Your task to perform on an android device: Go to ESPN.com Image 0: 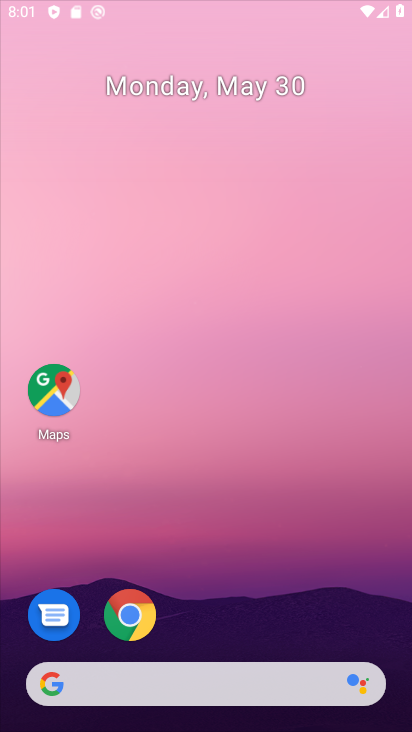
Step 0: press home button
Your task to perform on an android device: Go to ESPN.com Image 1: 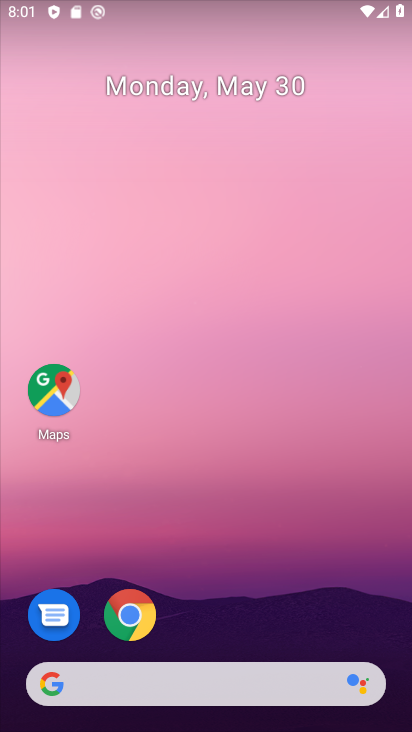
Step 1: click (123, 619)
Your task to perform on an android device: Go to ESPN.com Image 2: 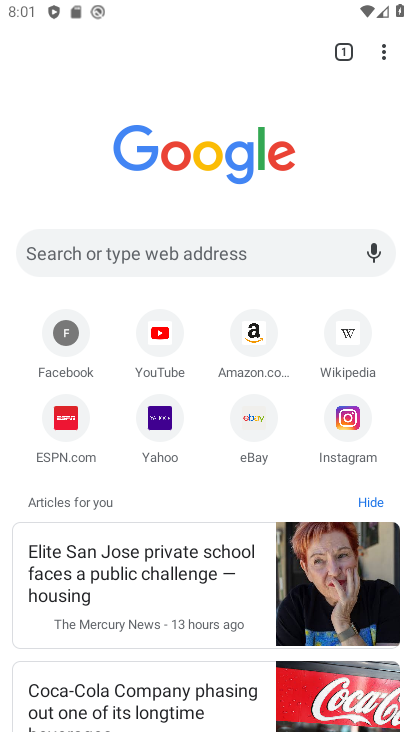
Step 2: click (67, 419)
Your task to perform on an android device: Go to ESPN.com Image 3: 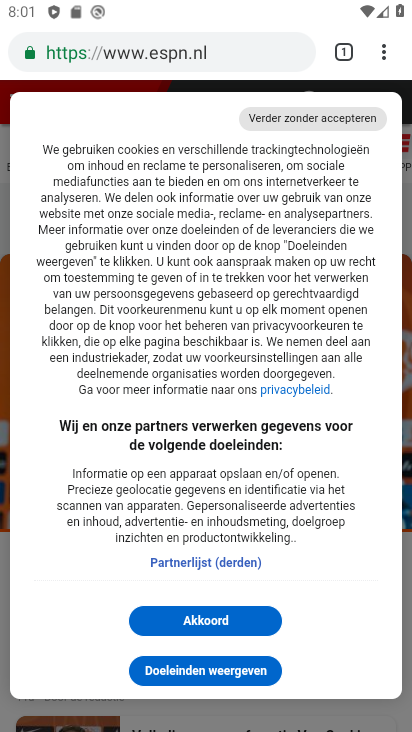
Step 3: click (188, 618)
Your task to perform on an android device: Go to ESPN.com Image 4: 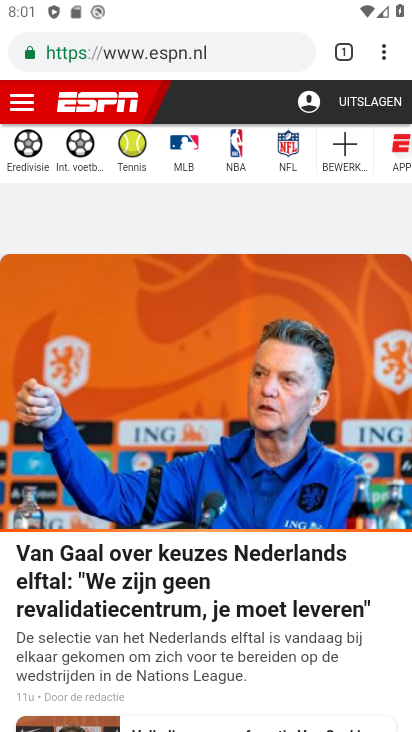
Step 4: task complete